Your task to perform on an android device: Open my contact list Image 0: 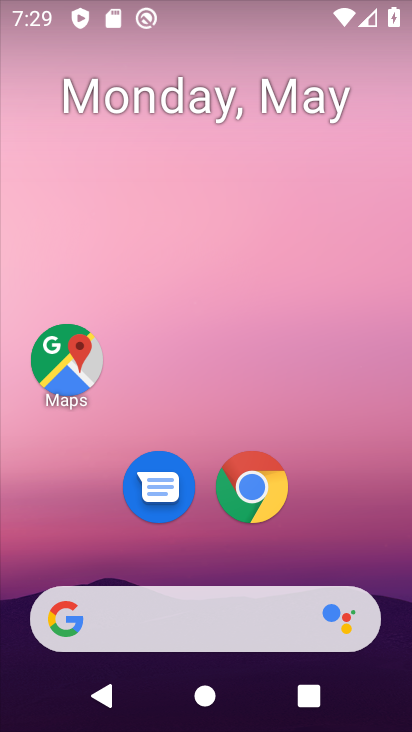
Step 0: drag from (358, 546) to (362, 195)
Your task to perform on an android device: Open my contact list Image 1: 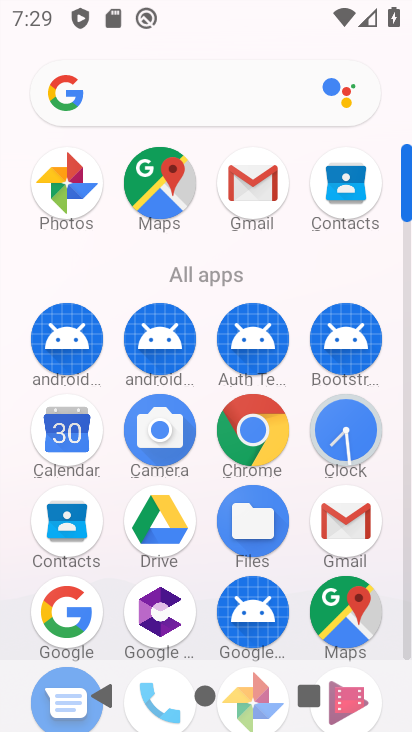
Step 1: click (90, 539)
Your task to perform on an android device: Open my contact list Image 2: 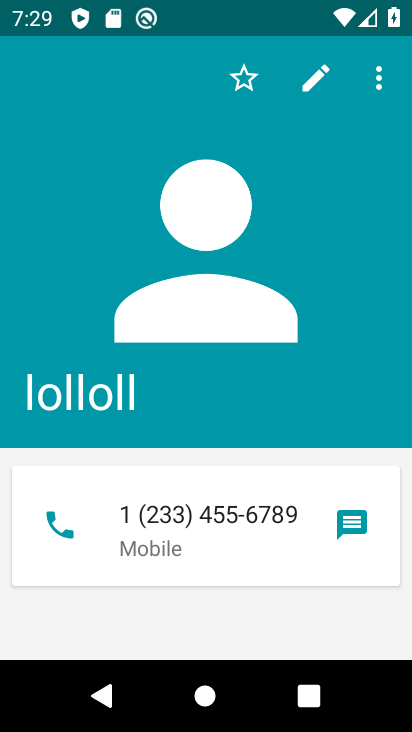
Step 2: task complete